Your task to perform on an android device: search for starred emails in the gmail app Image 0: 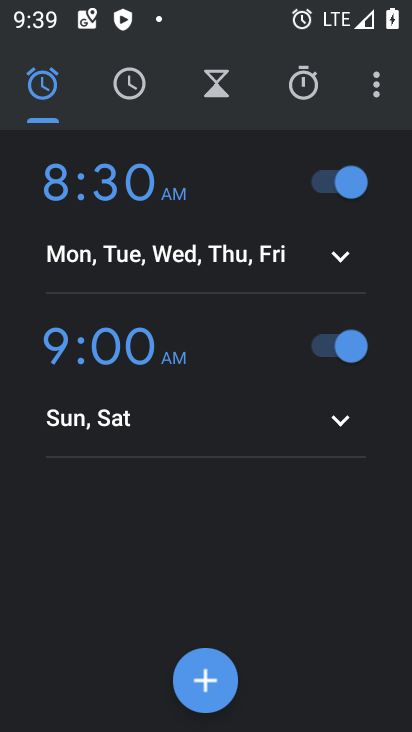
Step 0: press home button
Your task to perform on an android device: search for starred emails in the gmail app Image 1: 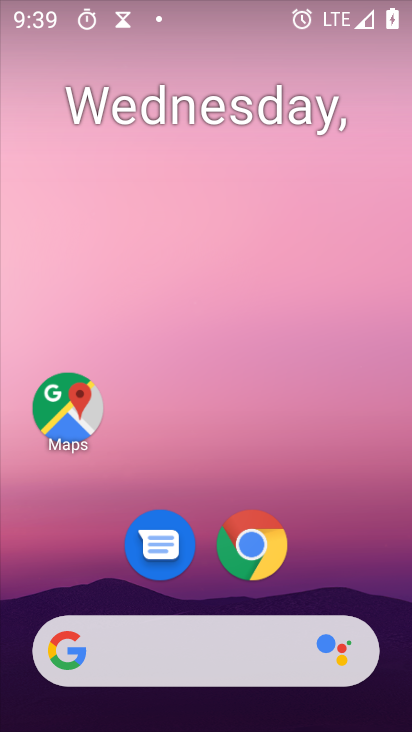
Step 1: drag from (230, 645) to (356, 97)
Your task to perform on an android device: search for starred emails in the gmail app Image 2: 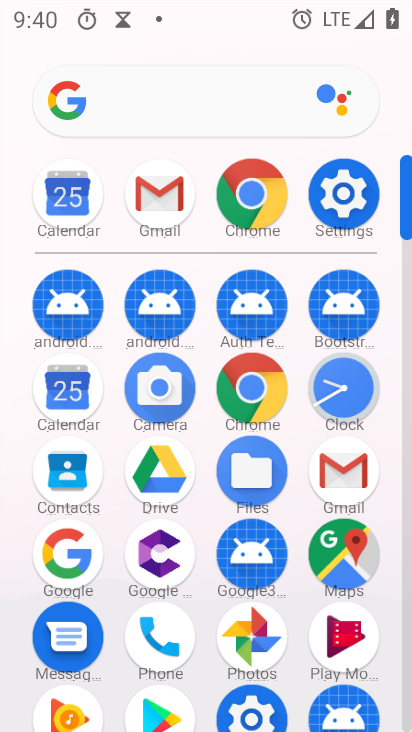
Step 2: click (170, 210)
Your task to perform on an android device: search for starred emails in the gmail app Image 3: 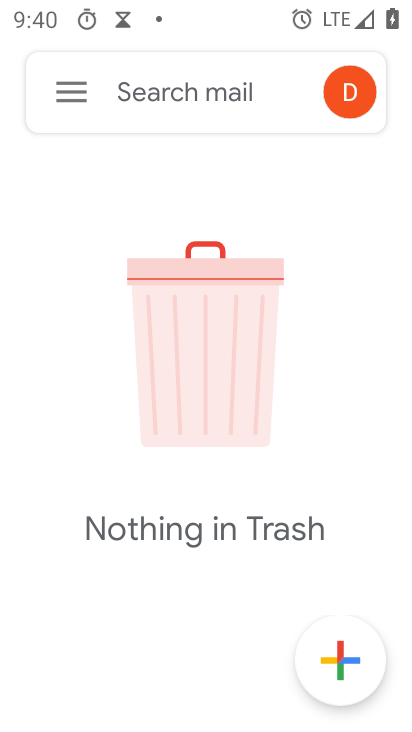
Step 3: click (78, 80)
Your task to perform on an android device: search for starred emails in the gmail app Image 4: 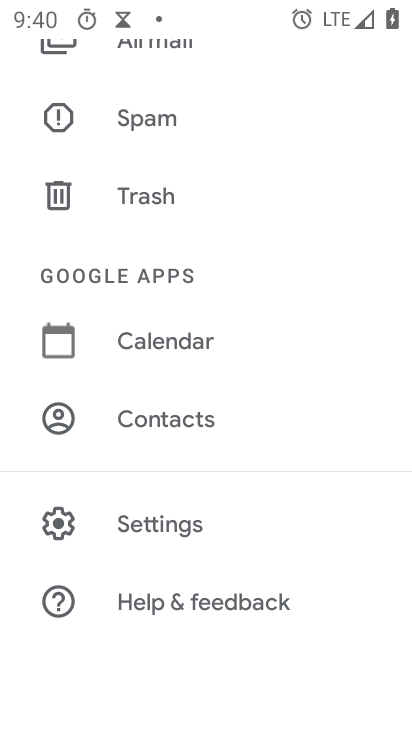
Step 4: drag from (279, 146) to (211, 573)
Your task to perform on an android device: search for starred emails in the gmail app Image 5: 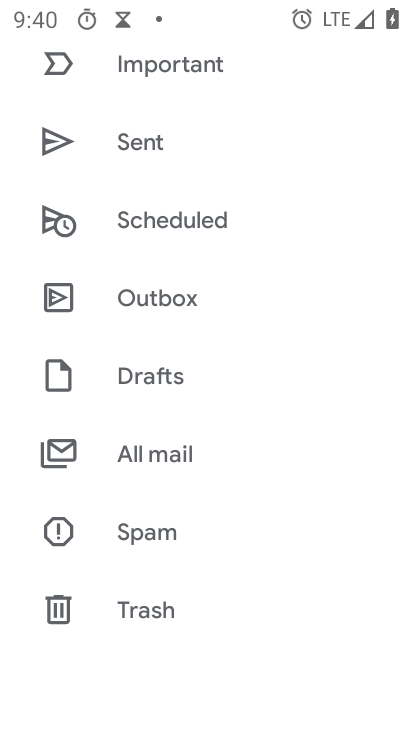
Step 5: drag from (286, 92) to (239, 480)
Your task to perform on an android device: search for starred emails in the gmail app Image 6: 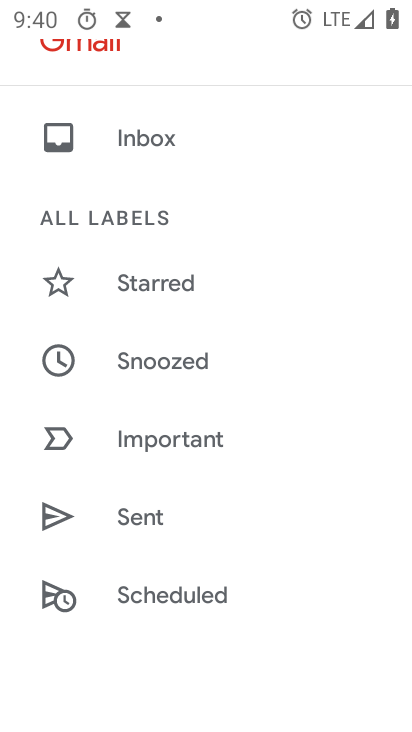
Step 6: click (161, 284)
Your task to perform on an android device: search for starred emails in the gmail app Image 7: 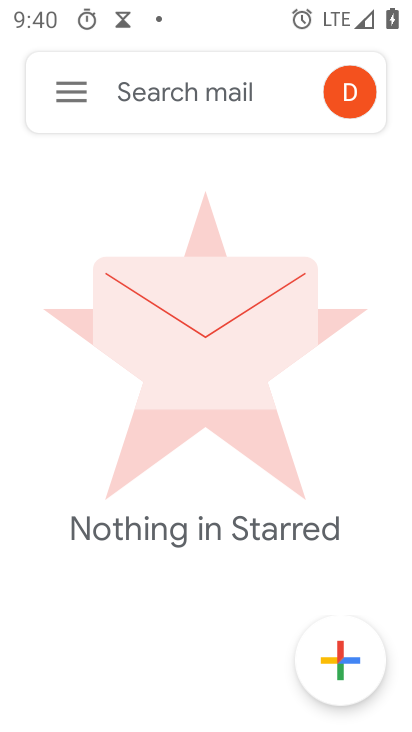
Step 7: task complete